Your task to perform on an android device: Search for sushi restaurants on Maps Image 0: 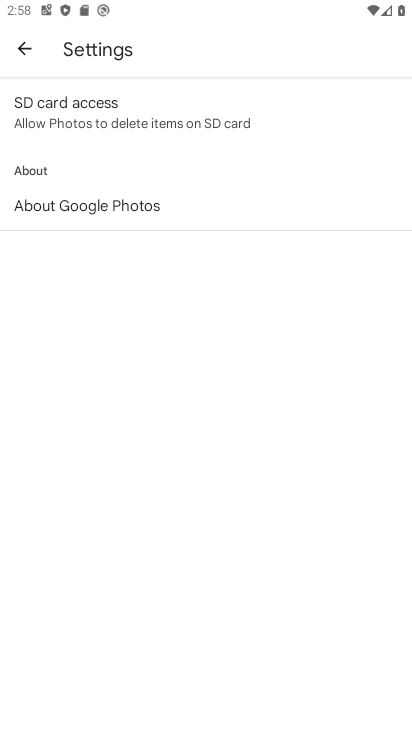
Step 0: press home button
Your task to perform on an android device: Search for sushi restaurants on Maps Image 1: 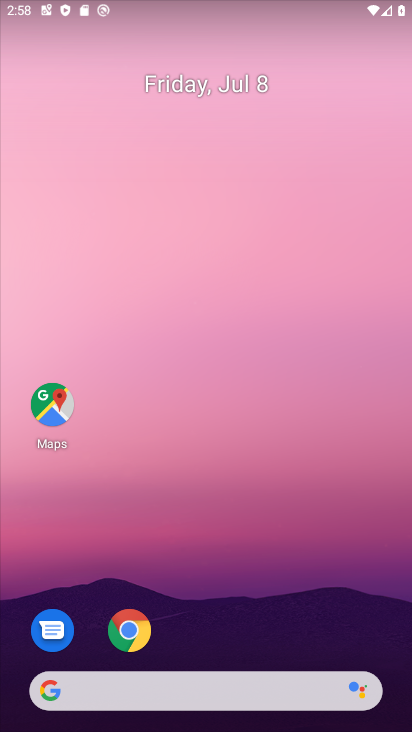
Step 1: drag from (318, 606) to (194, 18)
Your task to perform on an android device: Search for sushi restaurants on Maps Image 2: 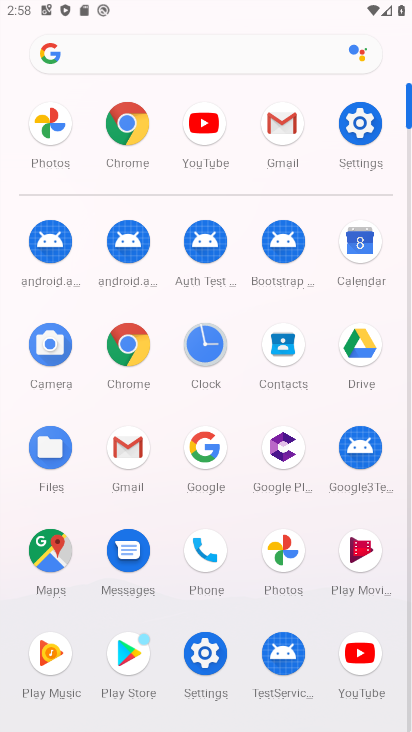
Step 2: click (47, 581)
Your task to perform on an android device: Search for sushi restaurants on Maps Image 3: 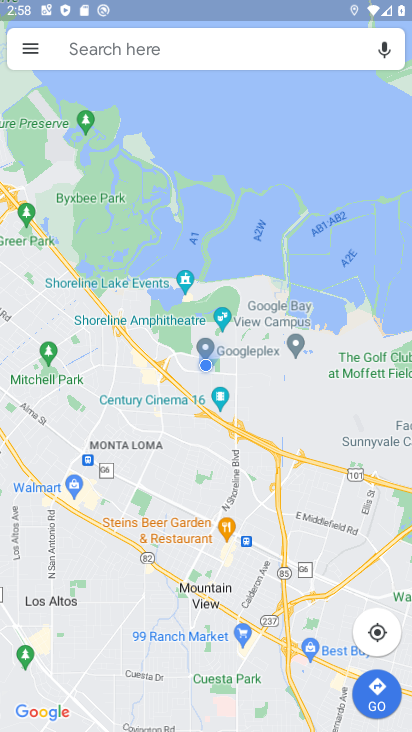
Step 3: click (127, 61)
Your task to perform on an android device: Search for sushi restaurants on Maps Image 4: 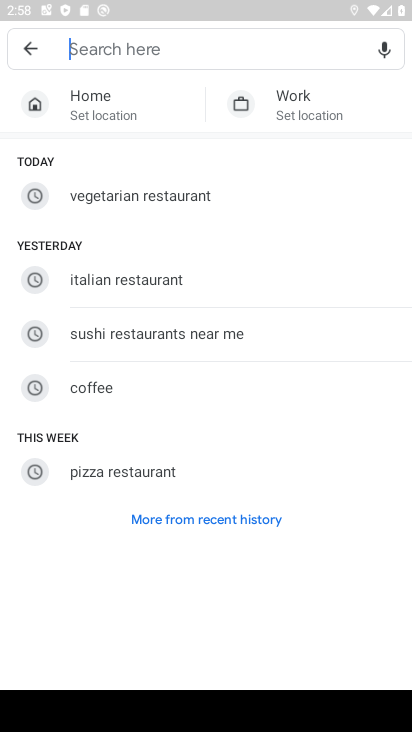
Step 4: click (145, 333)
Your task to perform on an android device: Search for sushi restaurants on Maps Image 5: 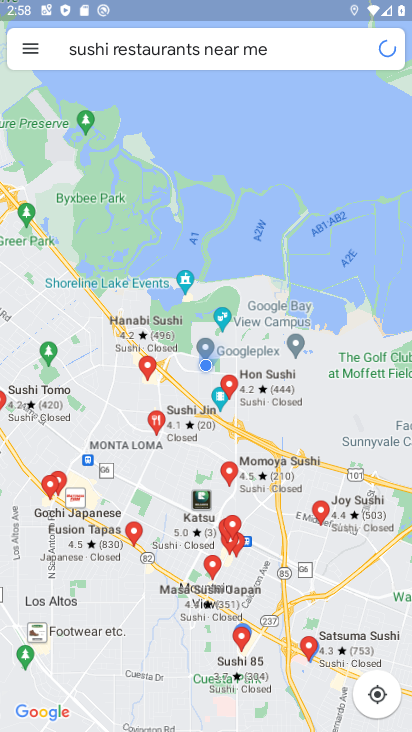
Step 5: task complete